Your task to perform on an android device: stop showing notifications on the lock screen Image 0: 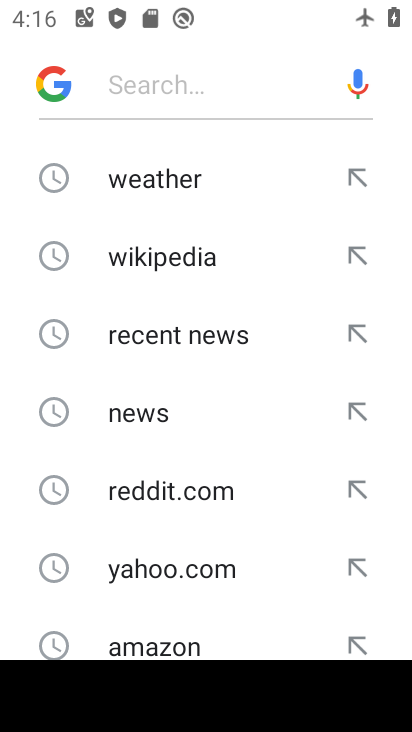
Step 0: press home button
Your task to perform on an android device: stop showing notifications on the lock screen Image 1: 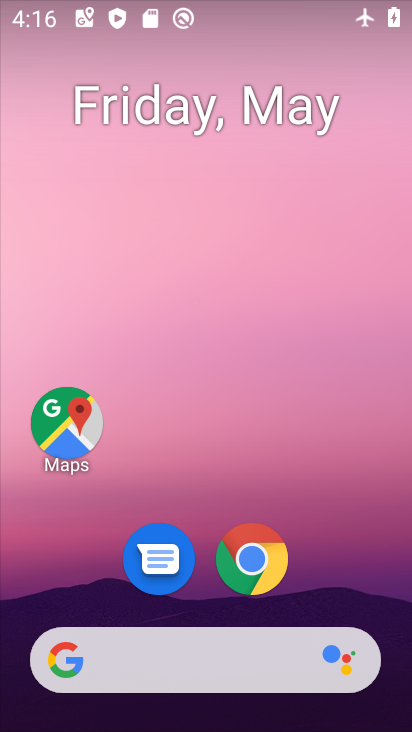
Step 1: drag from (325, 508) to (251, 45)
Your task to perform on an android device: stop showing notifications on the lock screen Image 2: 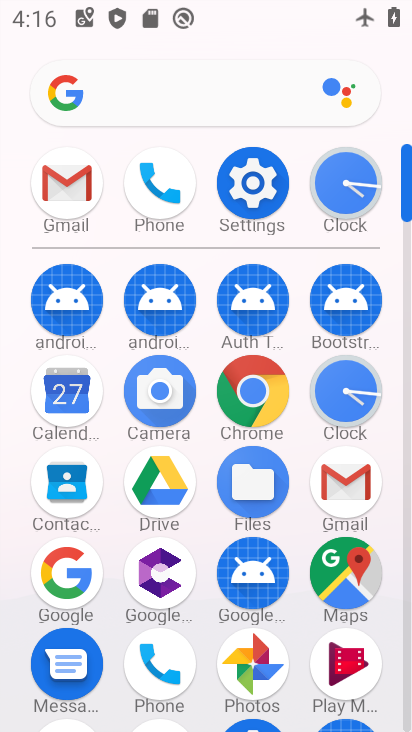
Step 2: click (249, 178)
Your task to perform on an android device: stop showing notifications on the lock screen Image 3: 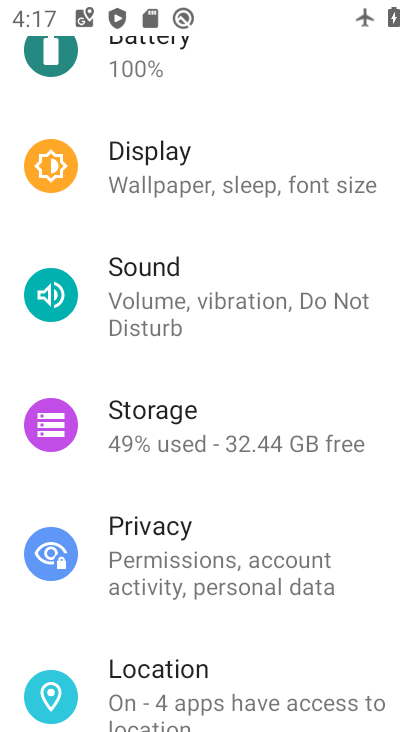
Step 3: drag from (148, 167) to (162, 601)
Your task to perform on an android device: stop showing notifications on the lock screen Image 4: 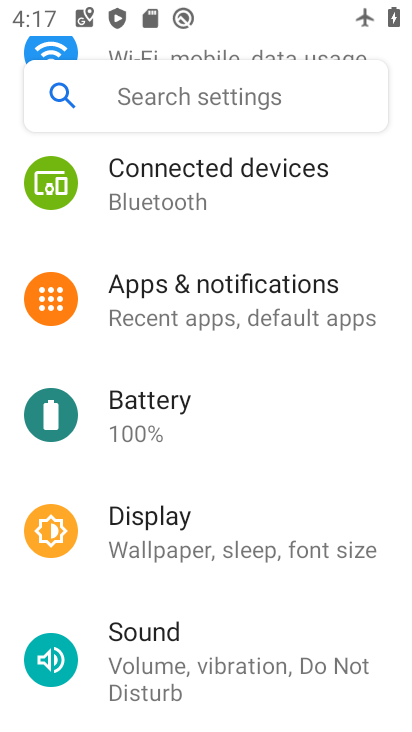
Step 4: drag from (264, 243) to (290, 628)
Your task to perform on an android device: stop showing notifications on the lock screen Image 5: 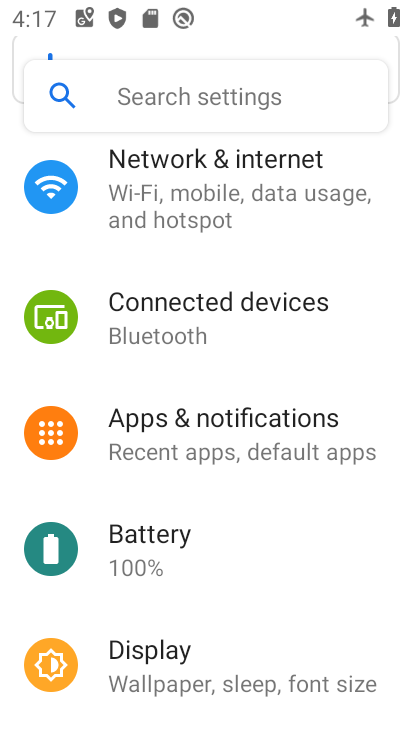
Step 5: drag from (290, 225) to (262, 632)
Your task to perform on an android device: stop showing notifications on the lock screen Image 6: 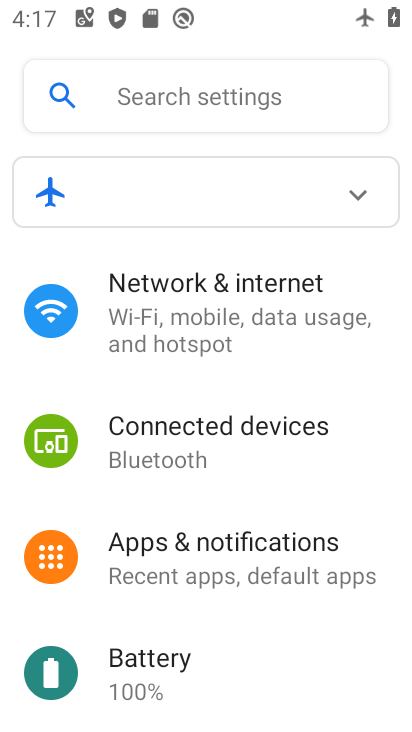
Step 6: drag from (266, 649) to (240, 201)
Your task to perform on an android device: stop showing notifications on the lock screen Image 7: 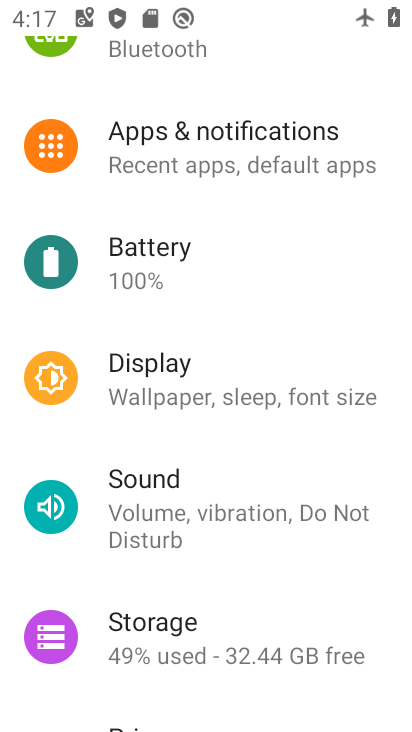
Step 7: drag from (275, 529) to (257, 190)
Your task to perform on an android device: stop showing notifications on the lock screen Image 8: 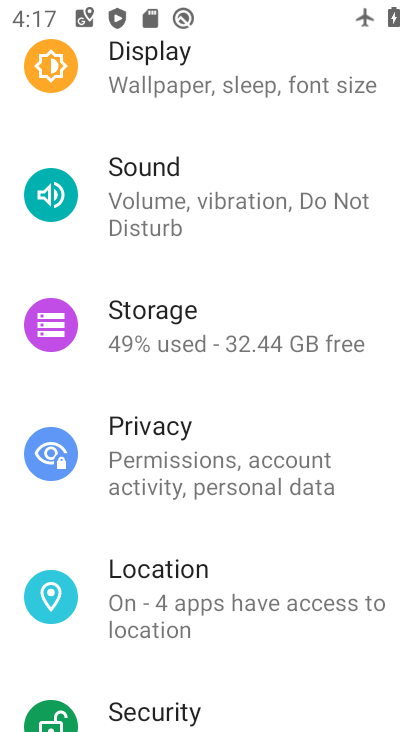
Step 8: drag from (222, 584) to (210, 207)
Your task to perform on an android device: stop showing notifications on the lock screen Image 9: 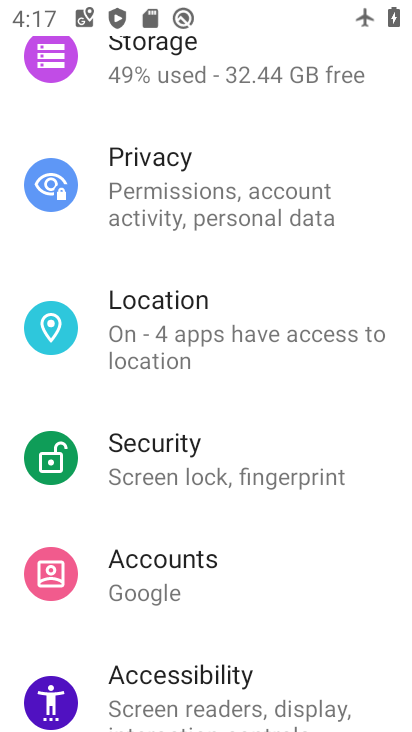
Step 9: drag from (251, 571) to (234, 205)
Your task to perform on an android device: stop showing notifications on the lock screen Image 10: 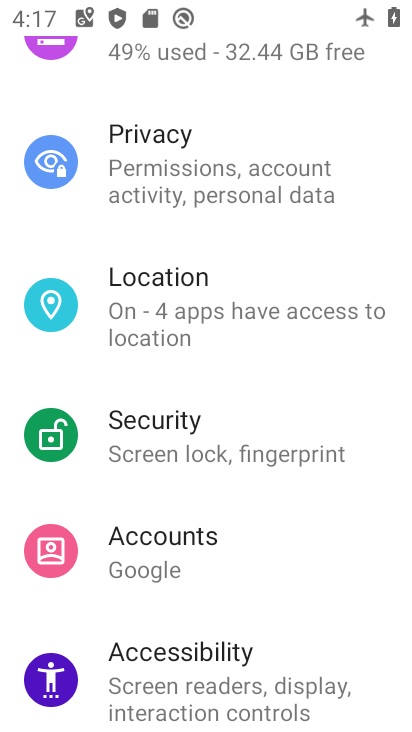
Step 10: drag from (219, 535) to (215, 201)
Your task to perform on an android device: stop showing notifications on the lock screen Image 11: 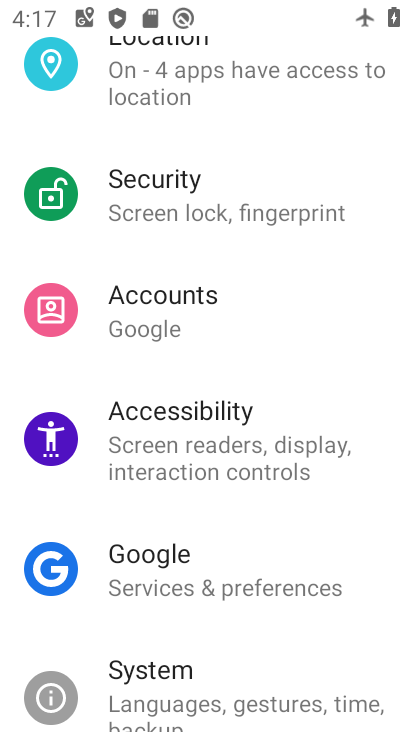
Step 11: drag from (253, 556) to (251, 212)
Your task to perform on an android device: stop showing notifications on the lock screen Image 12: 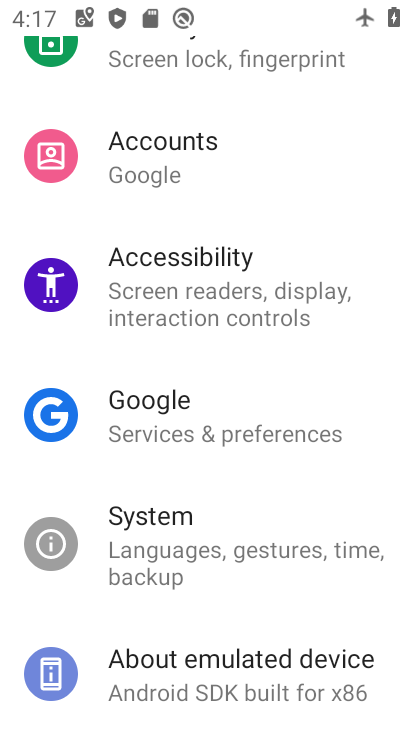
Step 12: drag from (253, 204) to (238, 663)
Your task to perform on an android device: stop showing notifications on the lock screen Image 13: 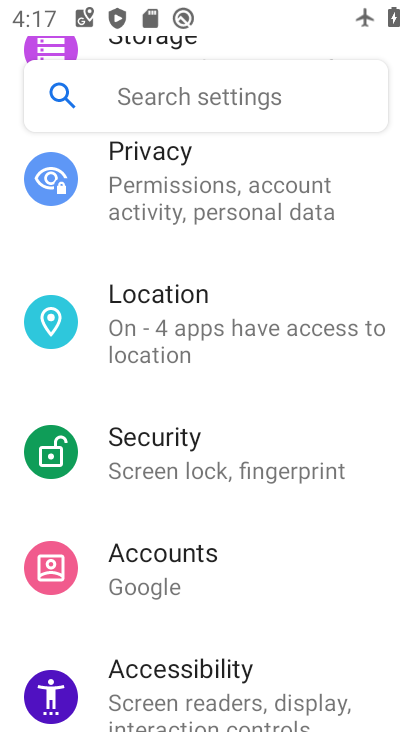
Step 13: drag from (239, 259) to (203, 728)
Your task to perform on an android device: stop showing notifications on the lock screen Image 14: 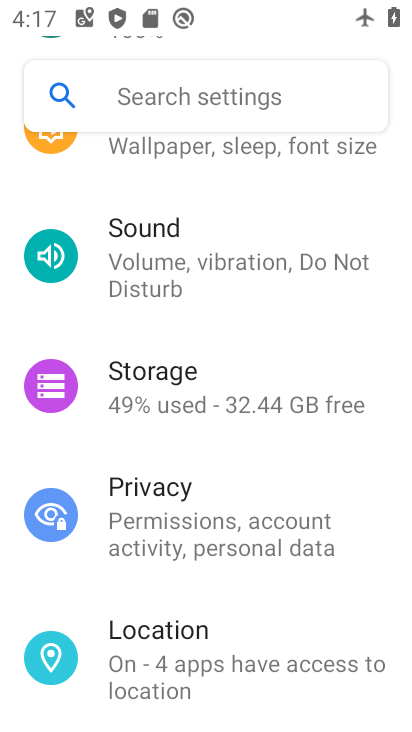
Step 14: drag from (236, 270) to (243, 721)
Your task to perform on an android device: stop showing notifications on the lock screen Image 15: 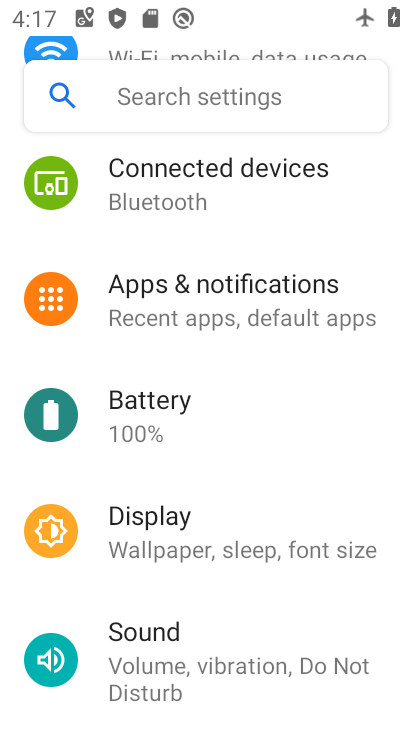
Step 15: drag from (224, 282) to (231, 619)
Your task to perform on an android device: stop showing notifications on the lock screen Image 16: 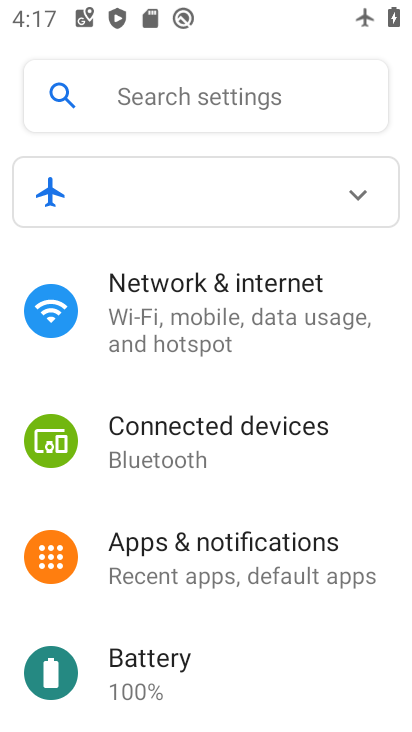
Step 16: click (126, 592)
Your task to perform on an android device: stop showing notifications on the lock screen Image 17: 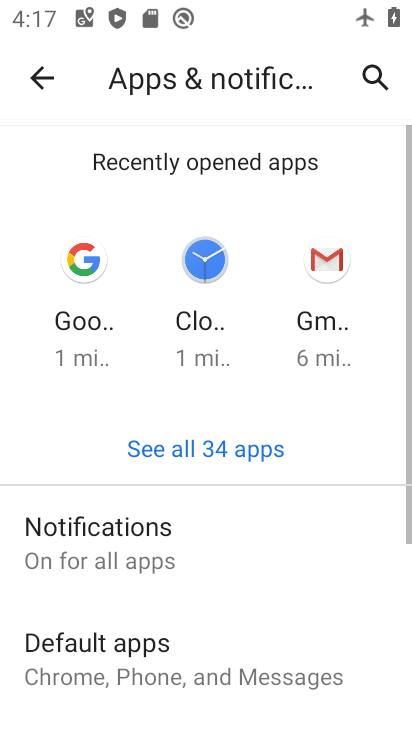
Step 17: drag from (175, 582) to (162, 124)
Your task to perform on an android device: stop showing notifications on the lock screen Image 18: 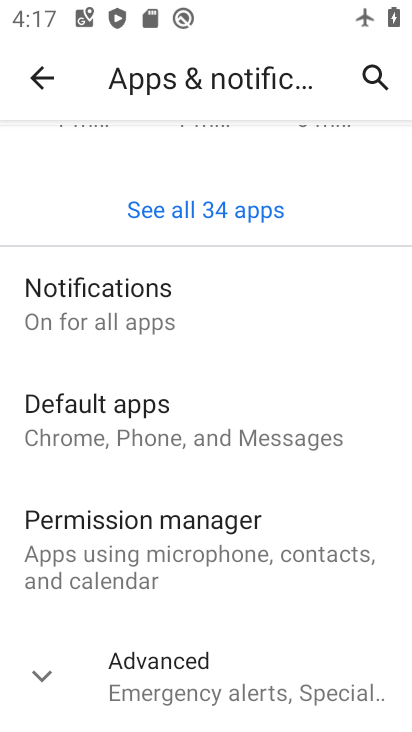
Step 18: click (235, 665)
Your task to perform on an android device: stop showing notifications on the lock screen Image 19: 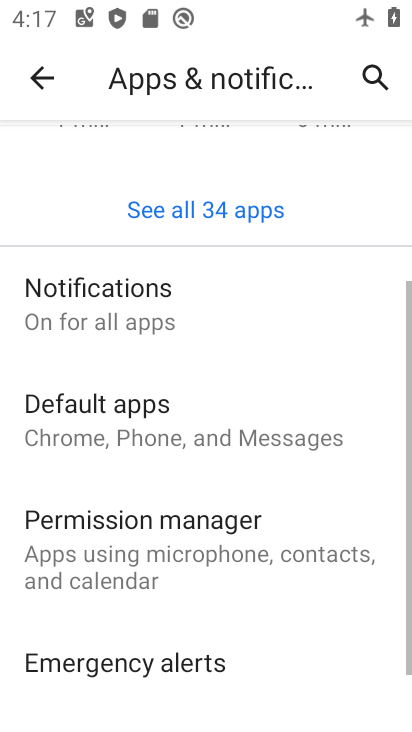
Step 19: drag from (227, 602) to (215, 156)
Your task to perform on an android device: stop showing notifications on the lock screen Image 20: 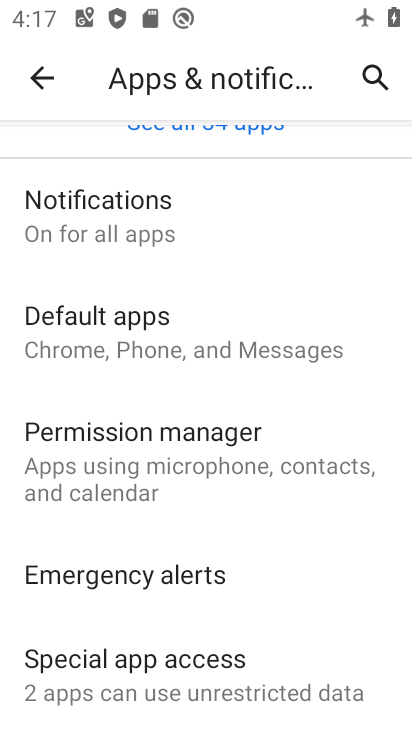
Step 20: drag from (207, 614) to (198, 131)
Your task to perform on an android device: stop showing notifications on the lock screen Image 21: 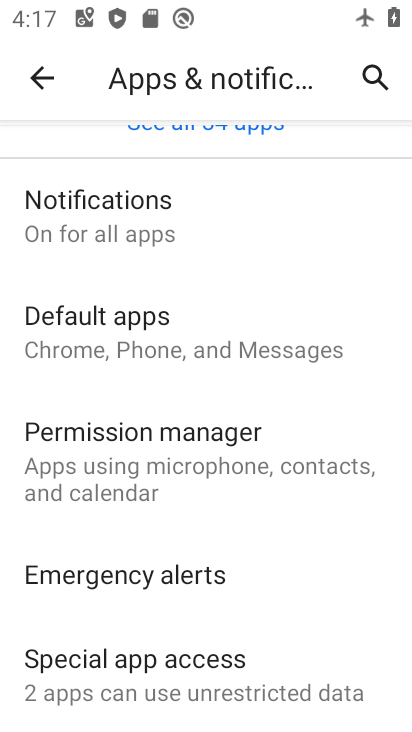
Step 21: press back button
Your task to perform on an android device: stop showing notifications on the lock screen Image 22: 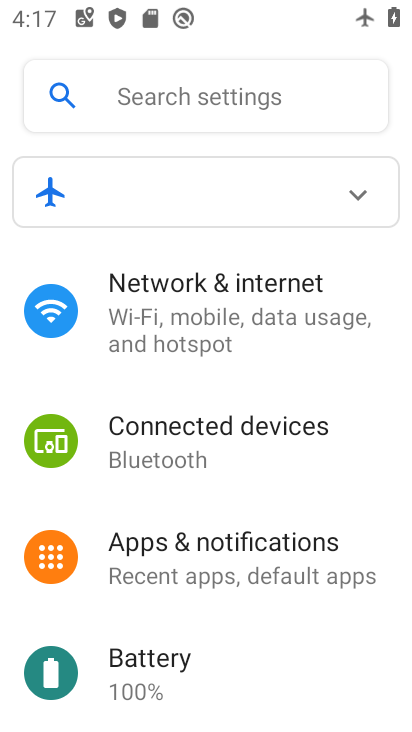
Step 22: drag from (286, 664) to (237, 212)
Your task to perform on an android device: stop showing notifications on the lock screen Image 23: 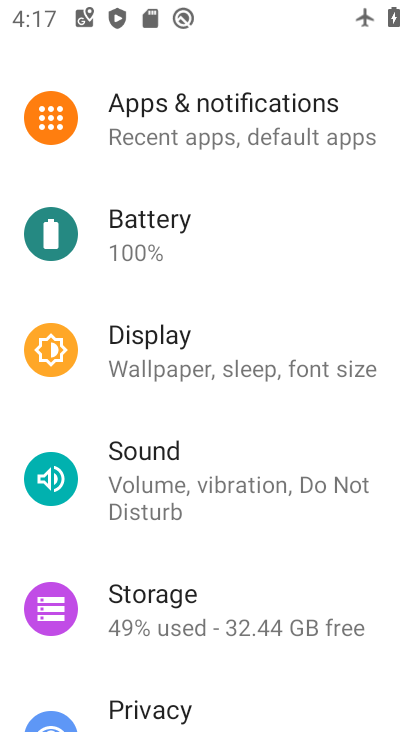
Step 23: drag from (273, 622) to (243, 174)
Your task to perform on an android device: stop showing notifications on the lock screen Image 24: 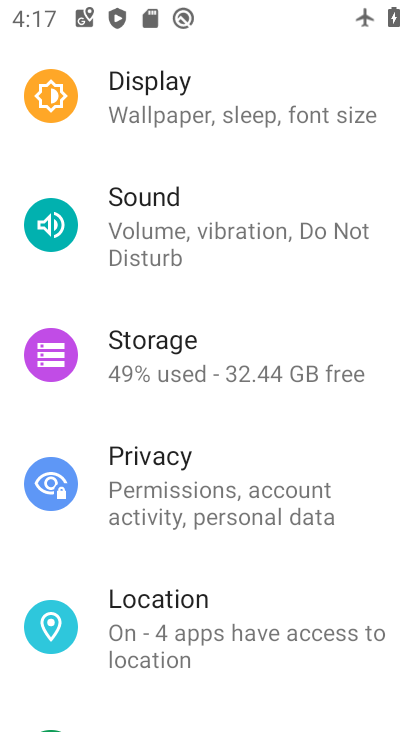
Step 24: drag from (202, 337) to (204, 174)
Your task to perform on an android device: stop showing notifications on the lock screen Image 25: 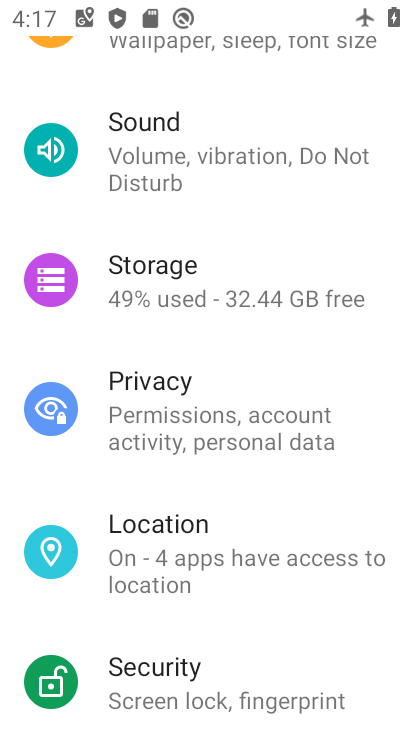
Step 25: drag from (206, 646) to (197, 206)
Your task to perform on an android device: stop showing notifications on the lock screen Image 26: 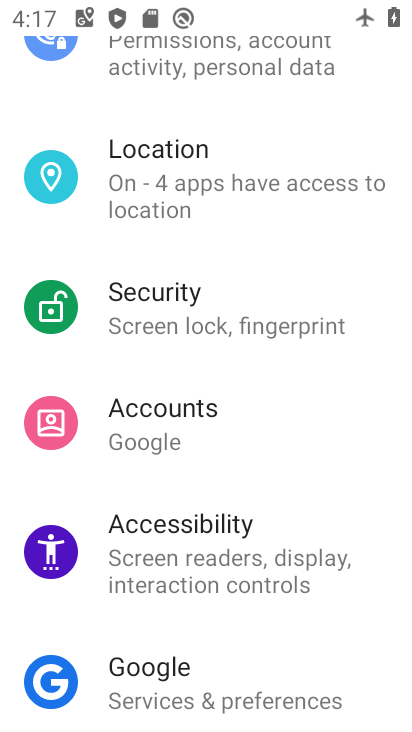
Step 26: drag from (193, 630) to (163, 241)
Your task to perform on an android device: stop showing notifications on the lock screen Image 27: 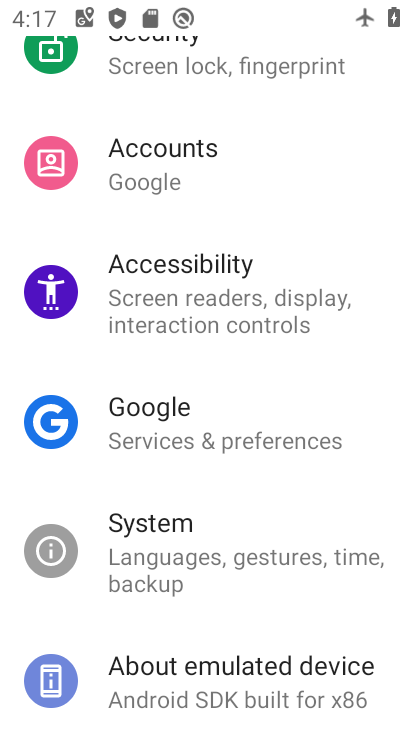
Step 27: drag from (197, 622) to (226, 192)
Your task to perform on an android device: stop showing notifications on the lock screen Image 28: 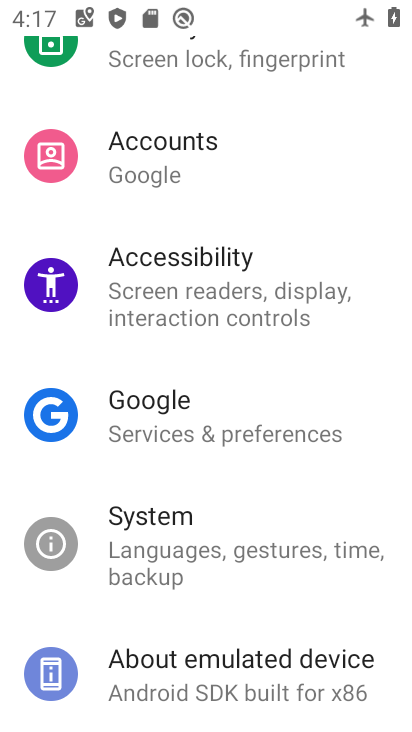
Step 28: click (246, 691)
Your task to perform on an android device: stop showing notifications on the lock screen Image 29: 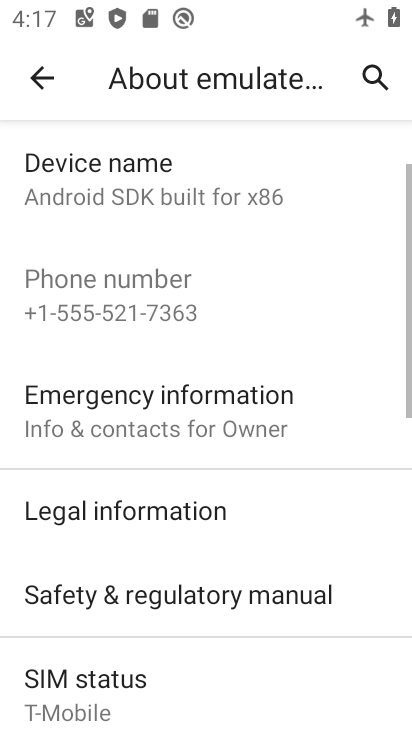
Step 29: drag from (291, 593) to (259, 135)
Your task to perform on an android device: stop showing notifications on the lock screen Image 30: 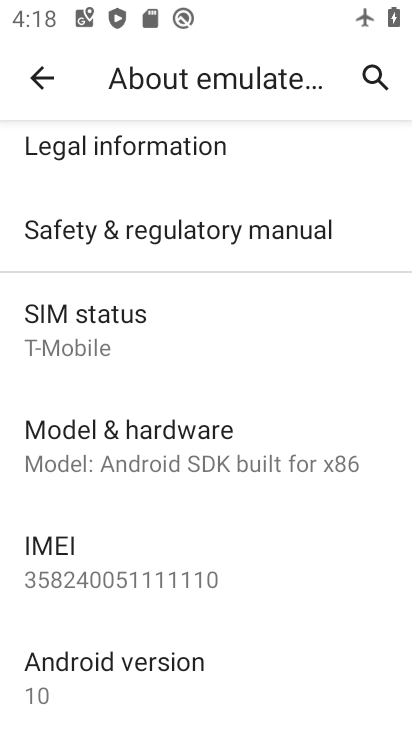
Step 30: drag from (225, 622) to (210, 159)
Your task to perform on an android device: stop showing notifications on the lock screen Image 31: 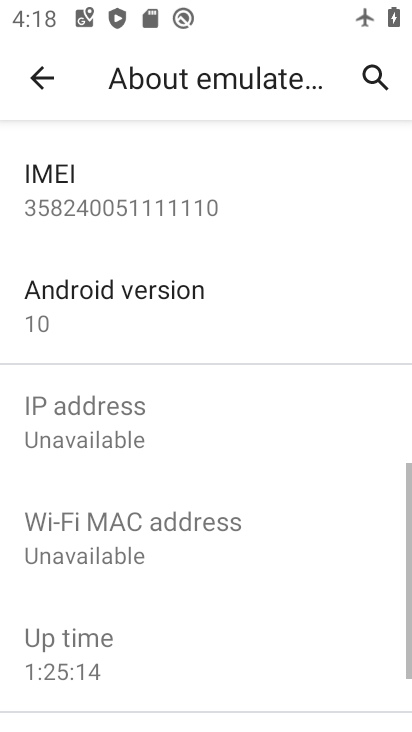
Step 31: press home button
Your task to perform on an android device: stop showing notifications on the lock screen Image 32: 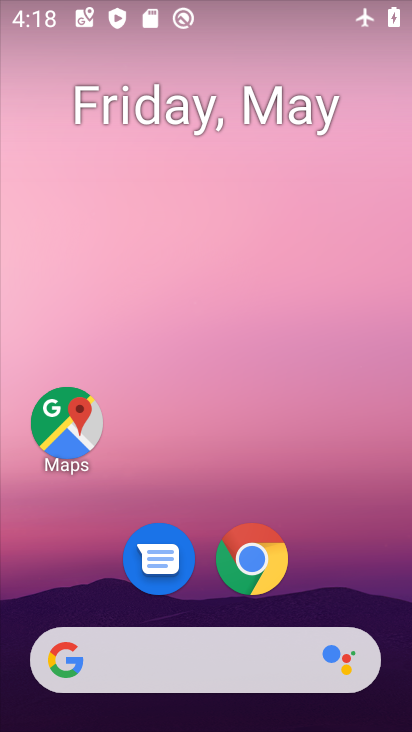
Step 32: drag from (346, 579) to (282, 129)
Your task to perform on an android device: stop showing notifications on the lock screen Image 33: 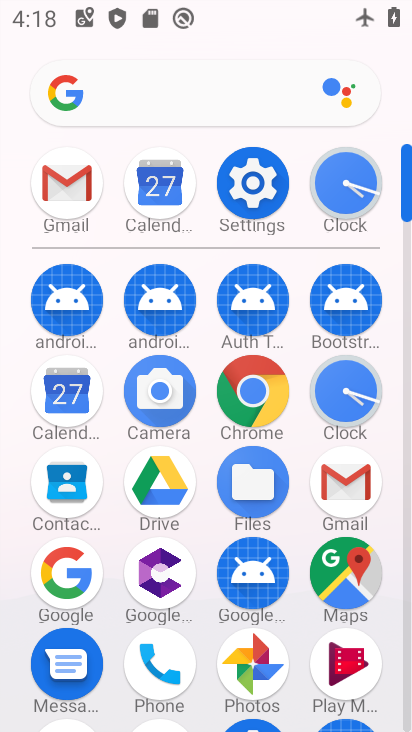
Step 33: click (234, 179)
Your task to perform on an android device: stop showing notifications on the lock screen Image 34: 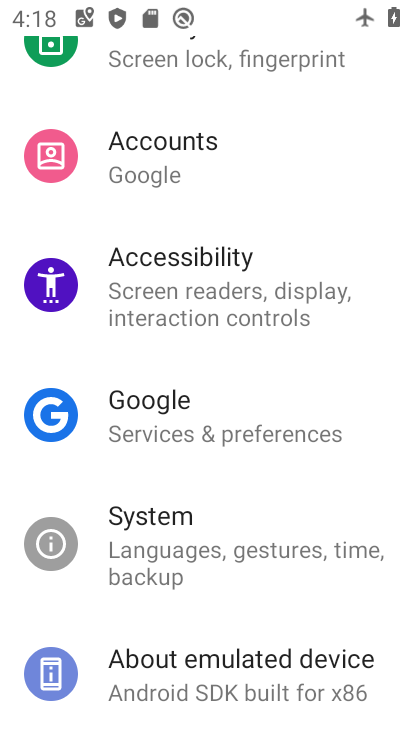
Step 34: drag from (213, 162) to (191, 717)
Your task to perform on an android device: stop showing notifications on the lock screen Image 35: 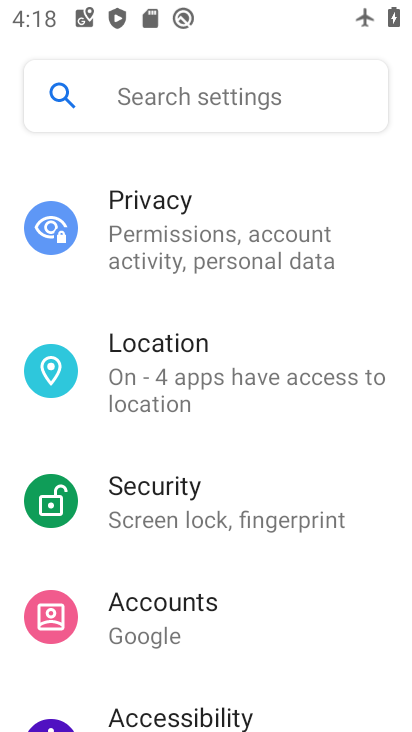
Step 35: drag from (179, 213) to (211, 672)
Your task to perform on an android device: stop showing notifications on the lock screen Image 36: 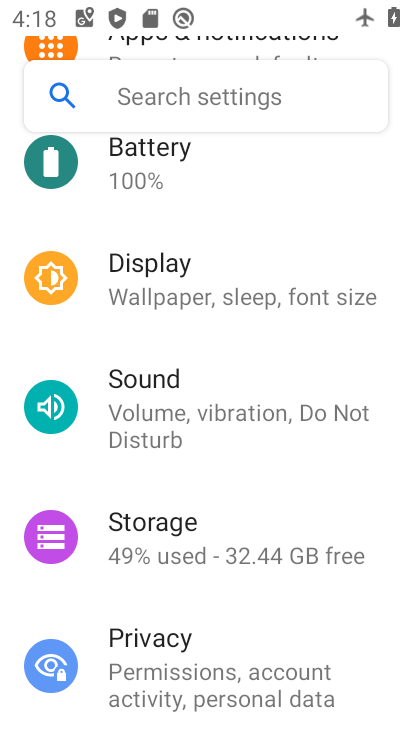
Step 36: drag from (215, 197) to (223, 641)
Your task to perform on an android device: stop showing notifications on the lock screen Image 37: 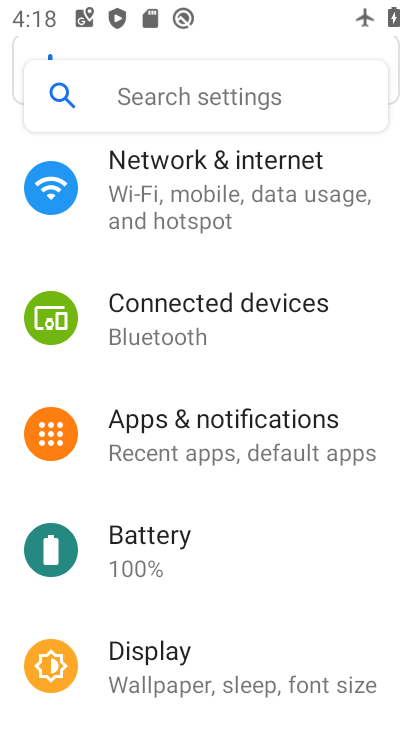
Step 37: click (195, 448)
Your task to perform on an android device: stop showing notifications on the lock screen Image 38: 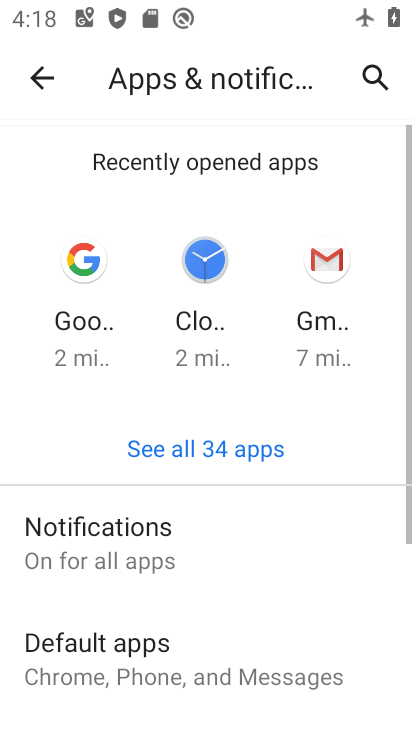
Step 38: drag from (214, 545) to (196, 77)
Your task to perform on an android device: stop showing notifications on the lock screen Image 39: 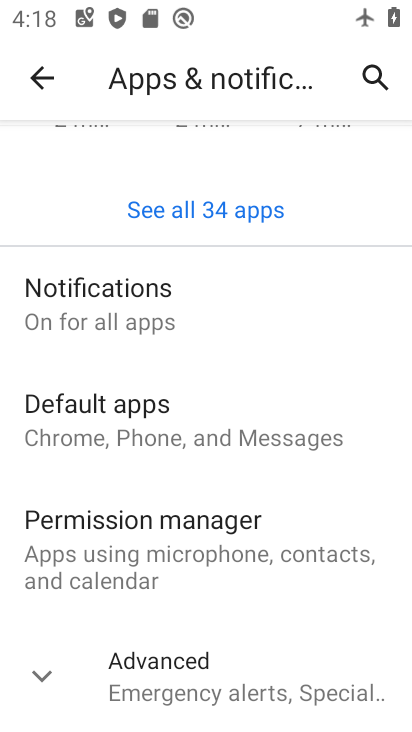
Step 39: click (169, 310)
Your task to perform on an android device: stop showing notifications on the lock screen Image 40: 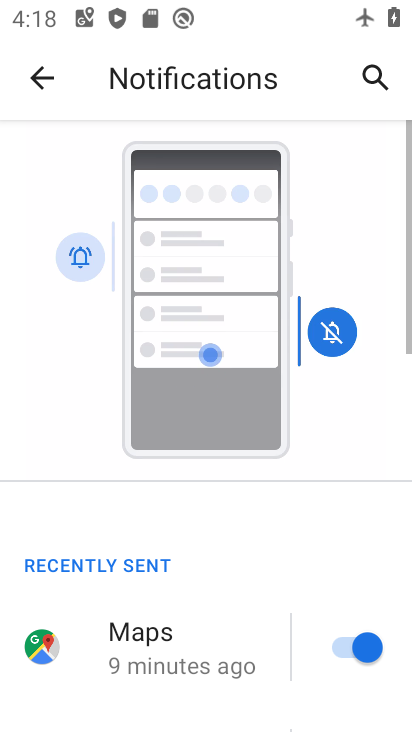
Step 40: drag from (182, 578) to (165, 90)
Your task to perform on an android device: stop showing notifications on the lock screen Image 41: 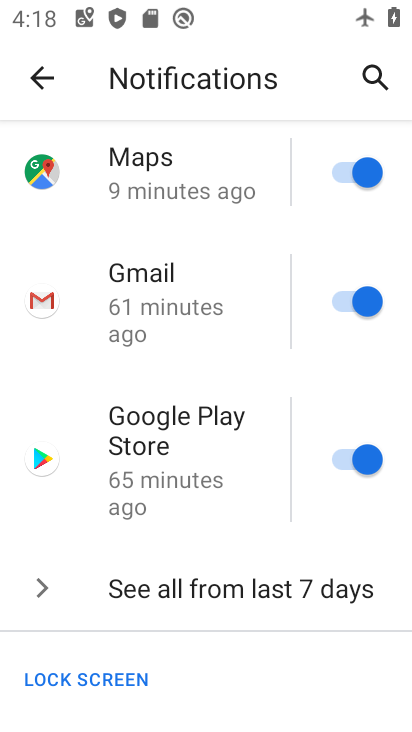
Step 41: drag from (118, 561) to (114, 145)
Your task to perform on an android device: stop showing notifications on the lock screen Image 42: 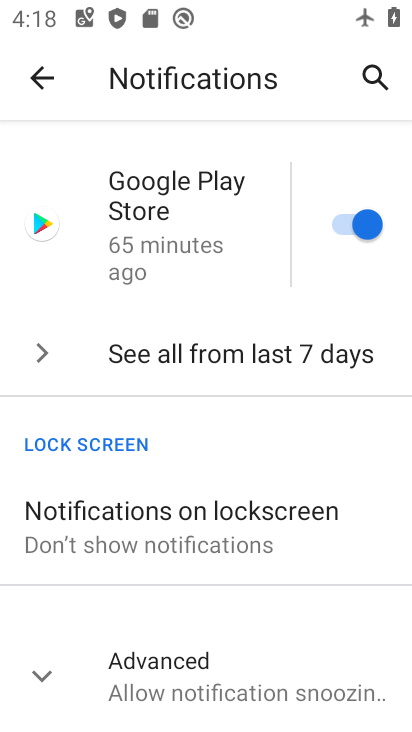
Step 42: click (140, 523)
Your task to perform on an android device: stop showing notifications on the lock screen Image 43: 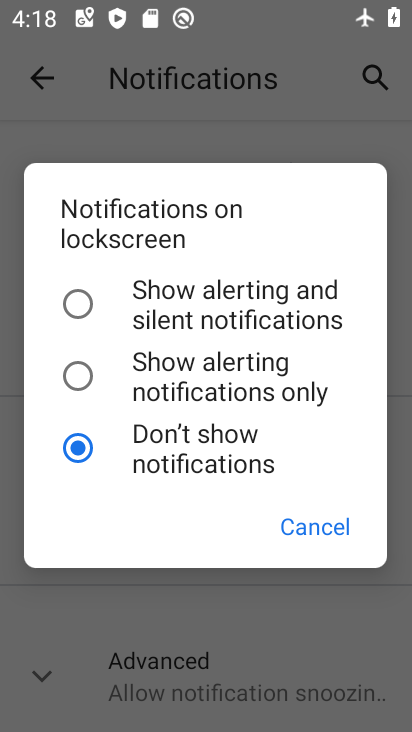
Step 43: click (147, 449)
Your task to perform on an android device: stop showing notifications on the lock screen Image 44: 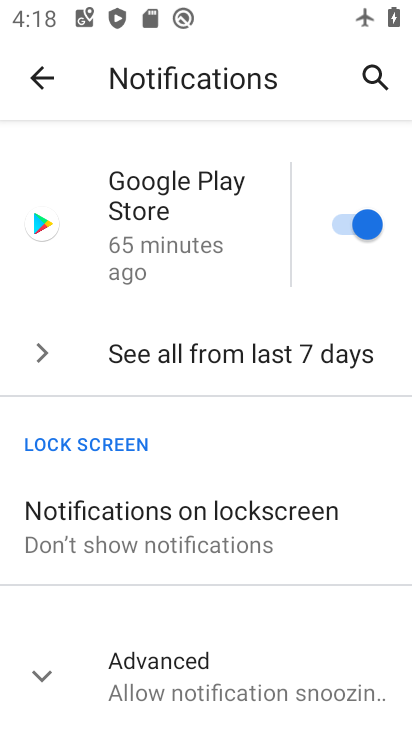
Step 44: task complete